Your task to perform on an android device: Set the phone to "Do not disturb". Image 0: 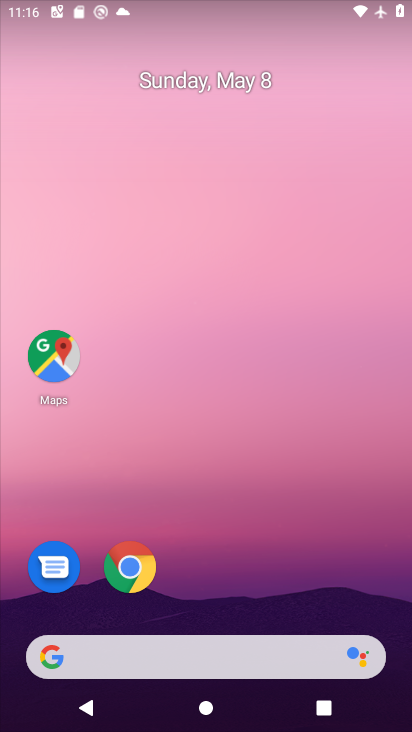
Step 0: drag from (241, 536) to (203, 172)
Your task to perform on an android device: Set the phone to "Do not disturb". Image 1: 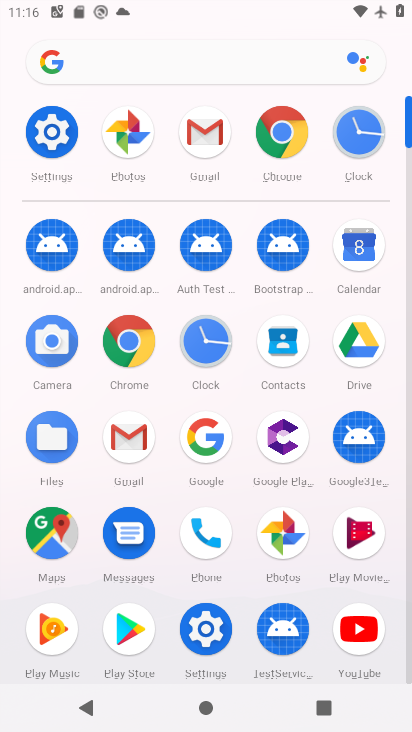
Step 1: click (209, 649)
Your task to perform on an android device: Set the phone to "Do not disturb". Image 2: 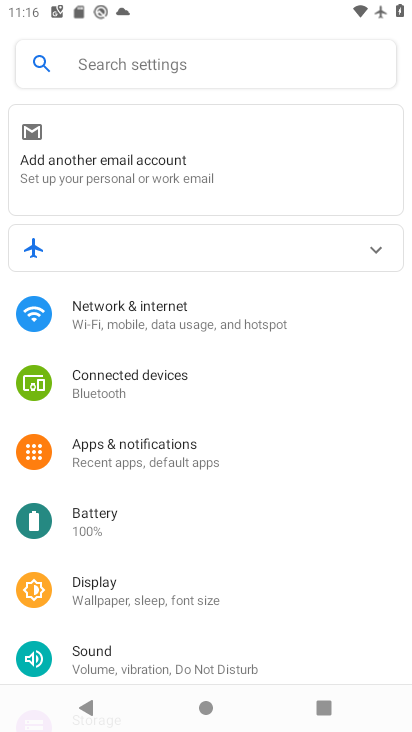
Step 2: drag from (168, 610) to (178, 385)
Your task to perform on an android device: Set the phone to "Do not disturb". Image 3: 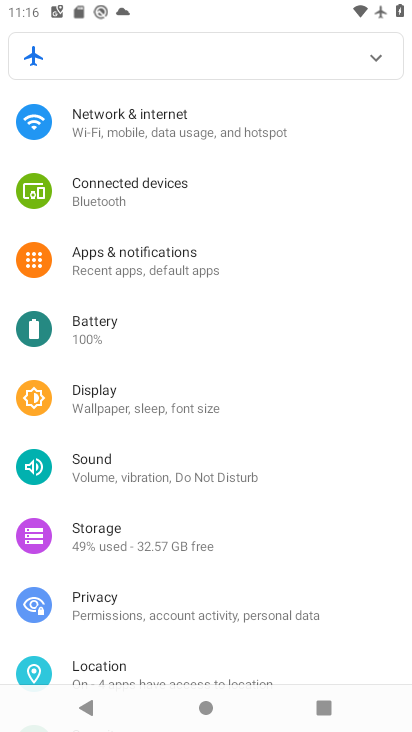
Step 3: click (114, 489)
Your task to perform on an android device: Set the phone to "Do not disturb". Image 4: 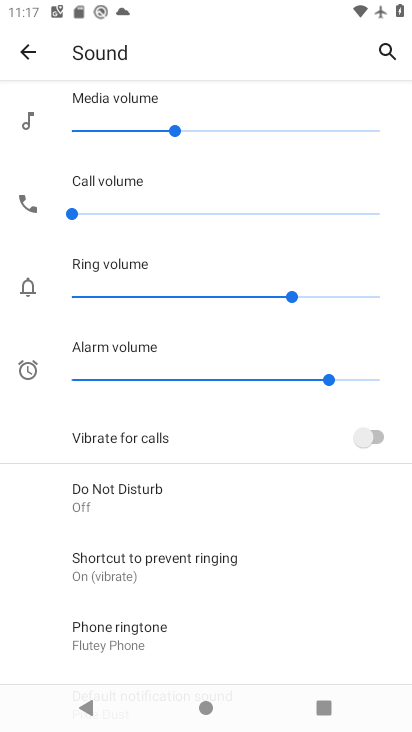
Step 4: click (111, 490)
Your task to perform on an android device: Set the phone to "Do not disturb". Image 5: 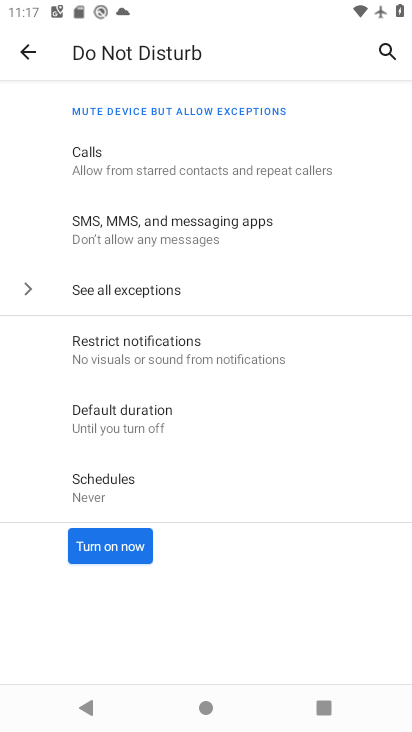
Step 5: click (79, 550)
Your task to perform on an android device: Set the phone to "Do not disturb". Image 6: 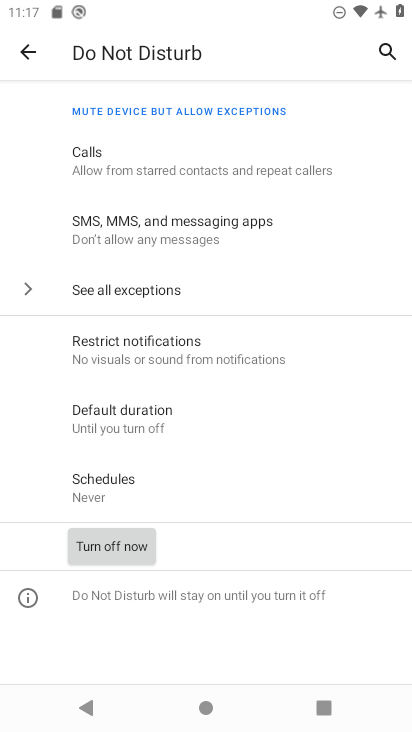
Step 6: task complete